Your task to perform on an android device: check out phone information Image 0: 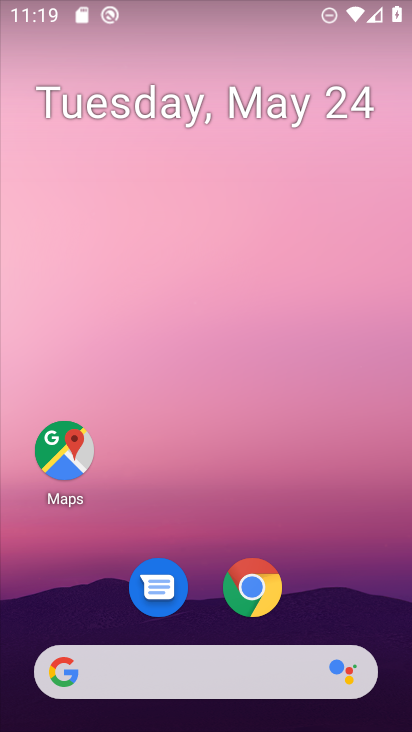
Step 0: drag from (383, 596) to (279, 104)
Your task to perform on an android device: check out phone information Image 1: 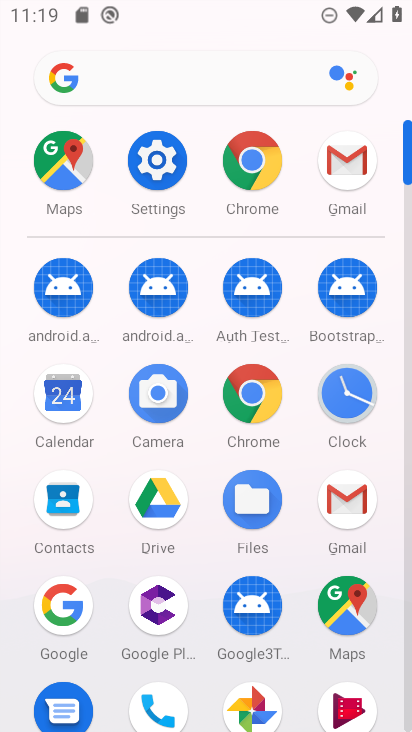
Step 1: click (150, 709)
Your task to perform on an android device: check out phone information Image 2: 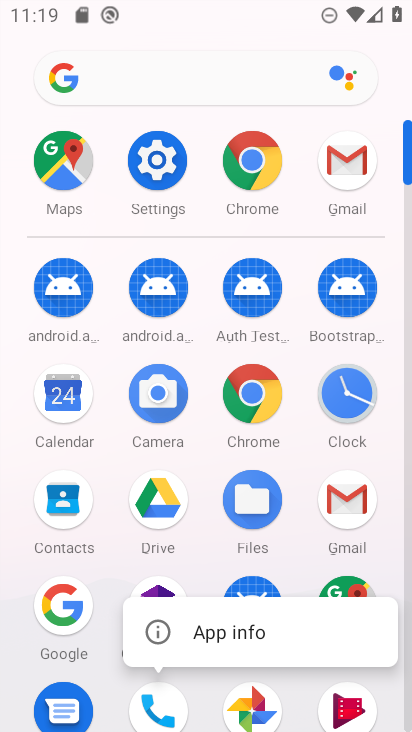
Step 2: click (198, 638)
Your task to perform on an android device: check out phone information Image 3: 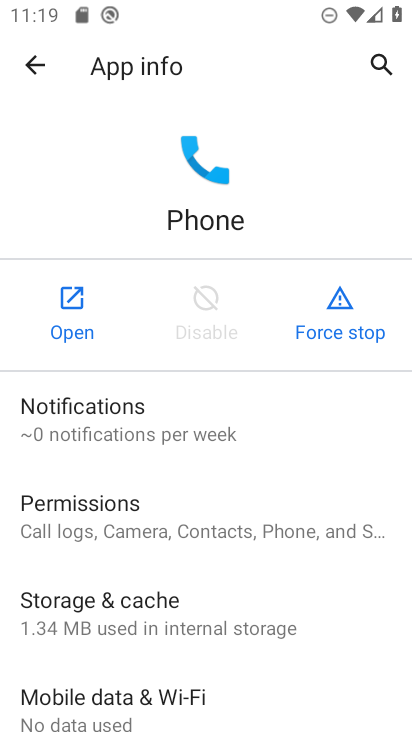
Step 3: click (156, 401)
Your task to perform on an android device: check out phone information Image 4: 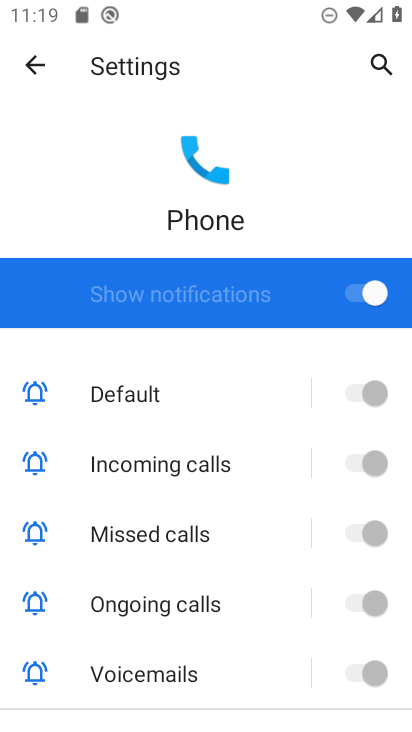
Step 4: click (24, 62)
Your task to perform on an android device: check out phone information Image 5: 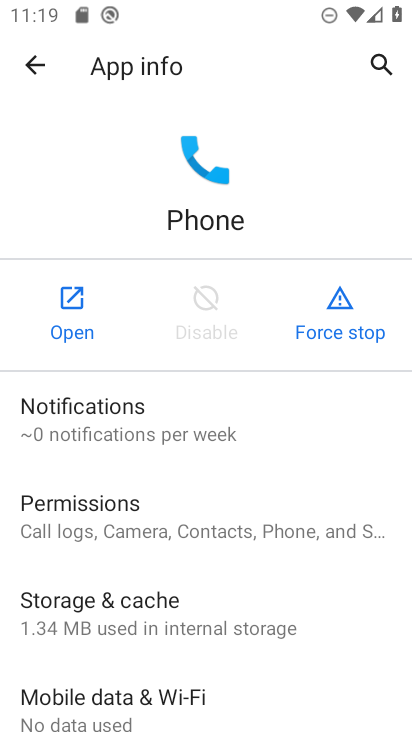
Step 5: task complete